Your task to perform on an android device: Show me recent news Image 0: 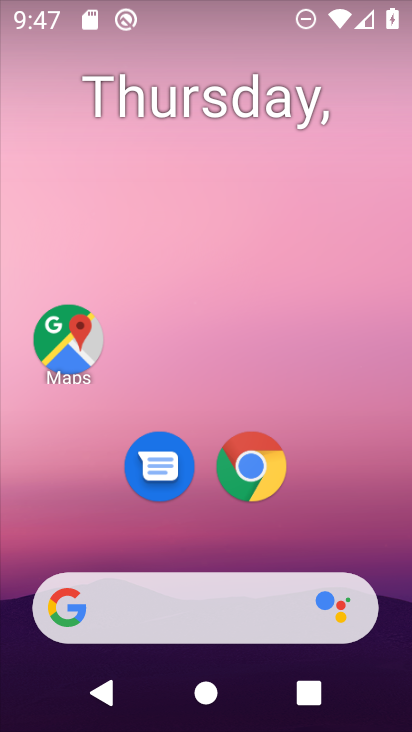
Step 0: drag from (236, 534) to (132, 0)
Your task to perform on an android device: Show me recent news Image 1: 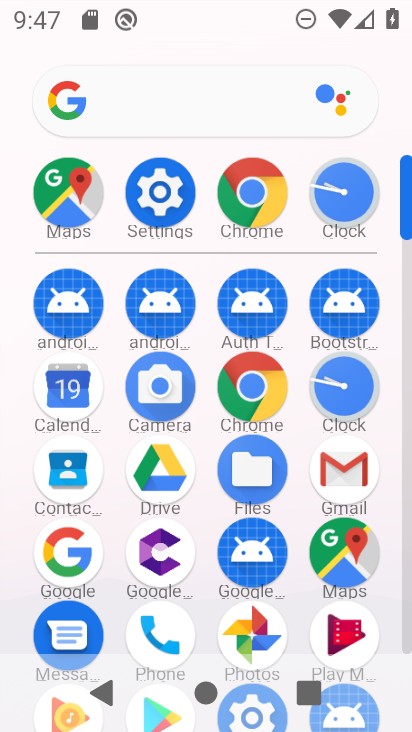
Step 1: click (251, 400)
Your task to perform on an android device: Show me recent news Image 2: 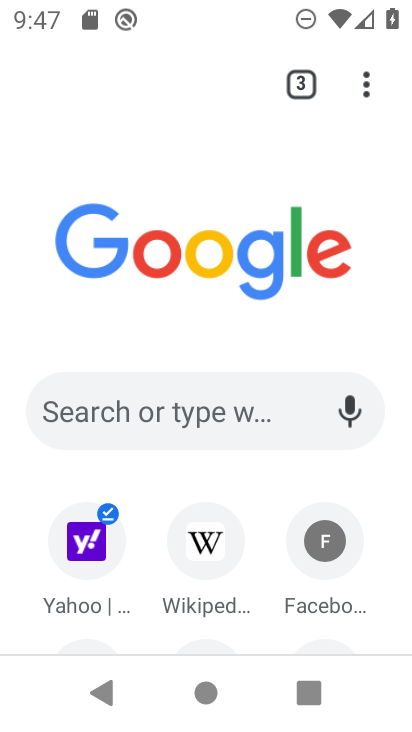
Step 2: click (180, 406)
Your task to perform on an android device: Show me recent news Image 3: 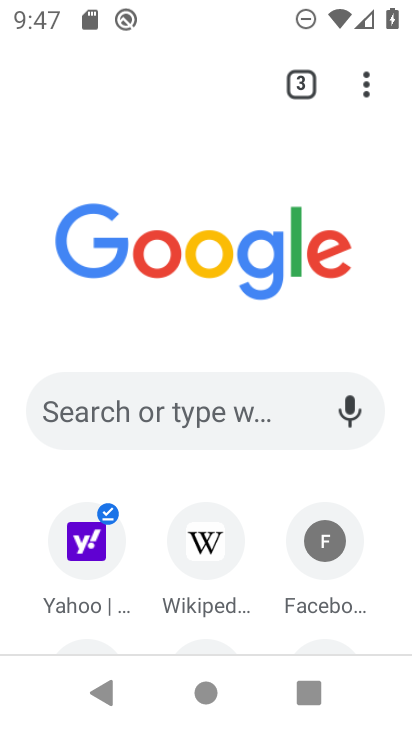
Step 3: click (180, 406)
Your task to perform on an android device: Show me recent news Image 4: 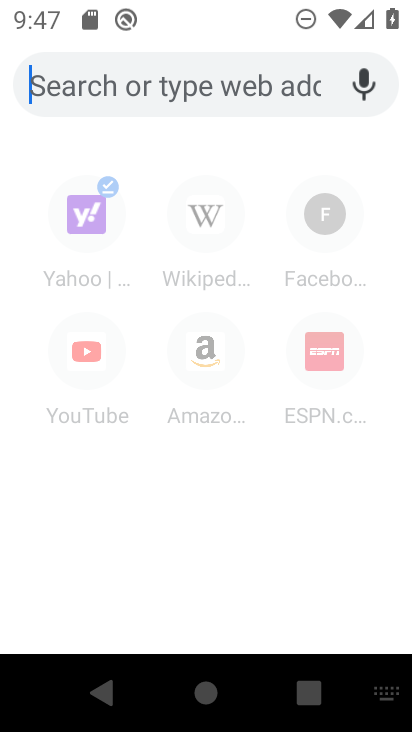
Step 4: type "recent news"
Your task to perform on an android device: Show me recent news Image 5: 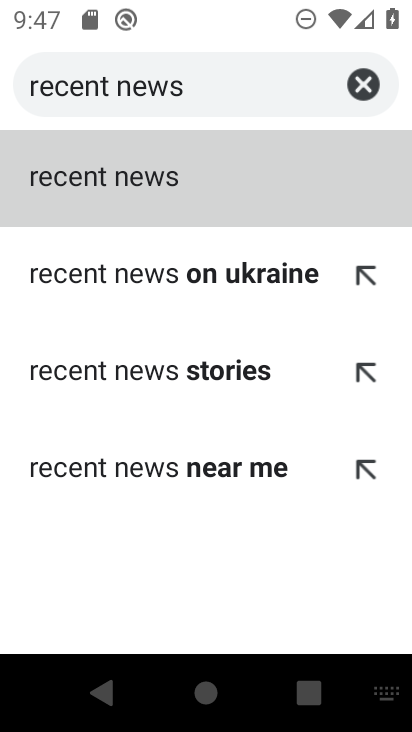
Step 5: click (119, 176)
Your task to perform on an android device: Show me recent news Image 6: 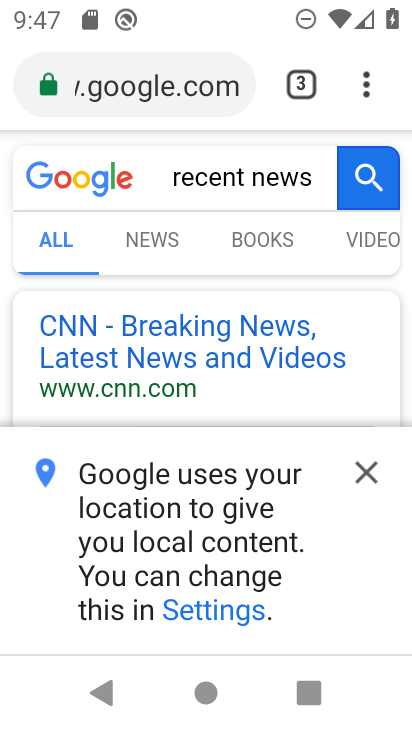
Step 6: task complete